Your task to perform on an android device: turn on location history Image 0: 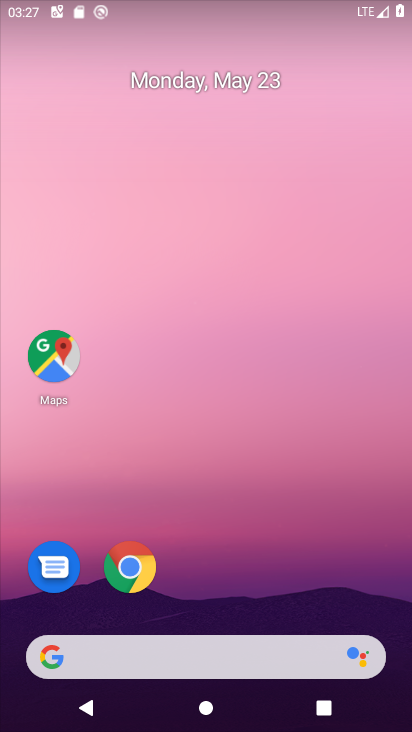
Step 0: drag from (69, 506) to (245, 100)
Your task to perform on an android device: turn on location history Image 1: 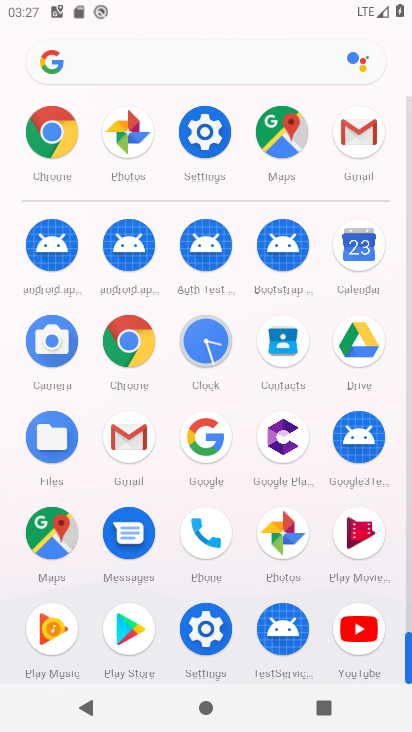
Step 1: click (233, 125)
Your task to perform on an android device: turn on location history Image 2: 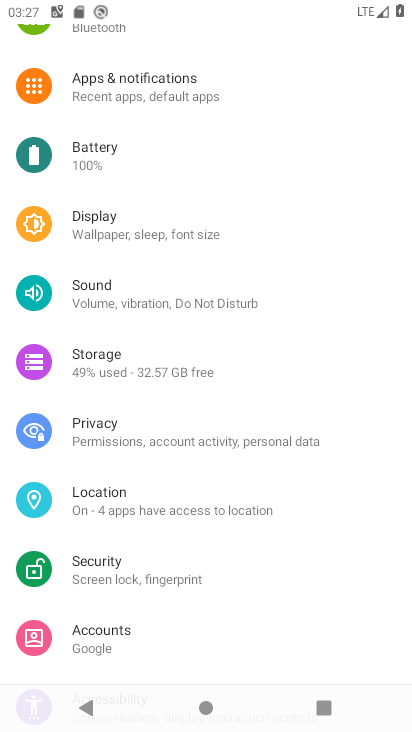
Step 2: click (92, 490)
Your task to perform on an android device: turn on location history Image 3: 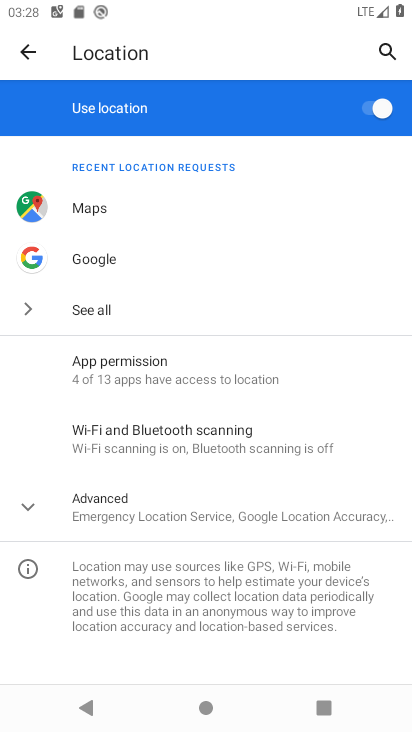
Step 3: click (167, 511)
Your task to perform on an android device: turn on location history Image 4: 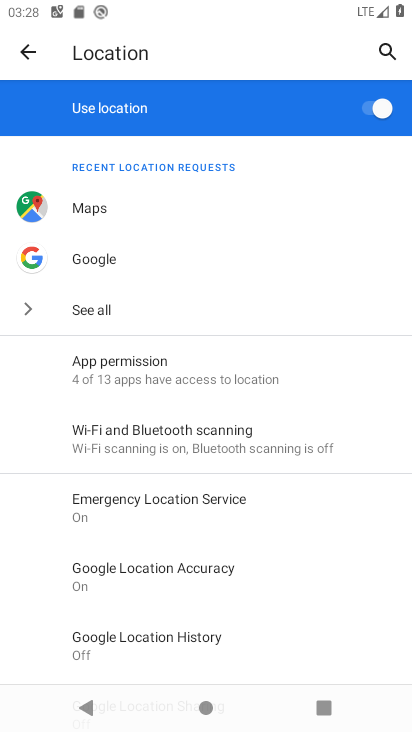
Step 4: click (116, 644)
Your task to perform on an android device: turn on location history Image 5: 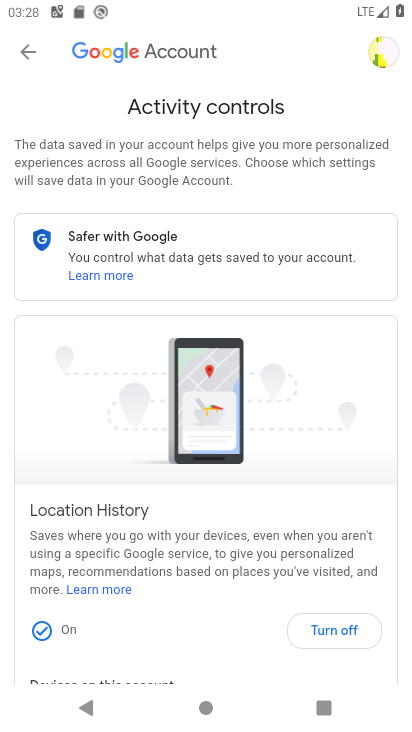
Step 5: task complete